Your task to perform on an android device: Go to notification settings Image 0: 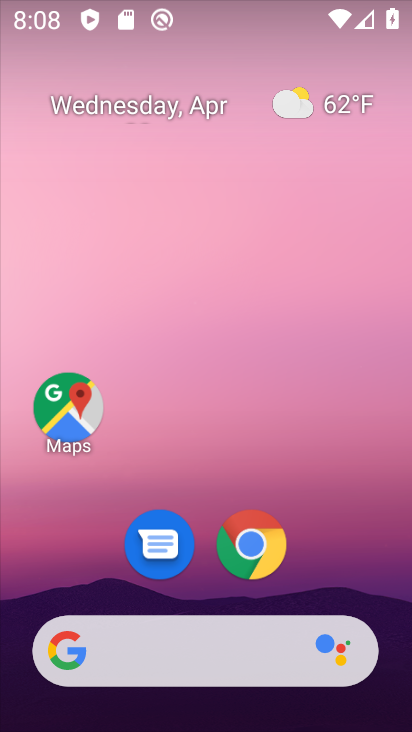
Step 0: drag from (343, 583) to (281, 139)
Your task to perform on an android device: Go to notification settings Image 1: 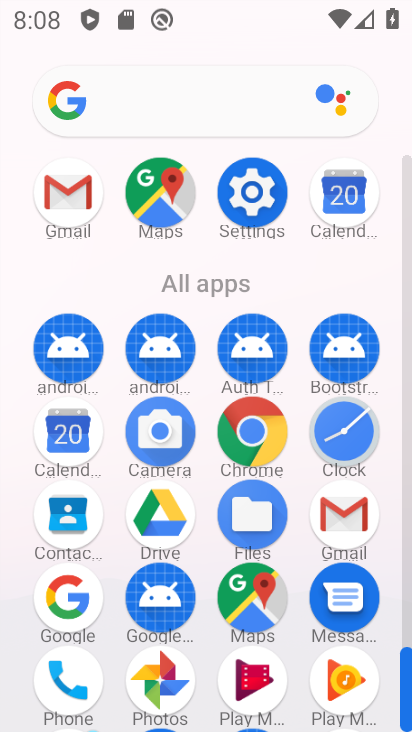
Step 1: click (262, 193)
Your task to perform on an android device: Go to notification settings Image 2: 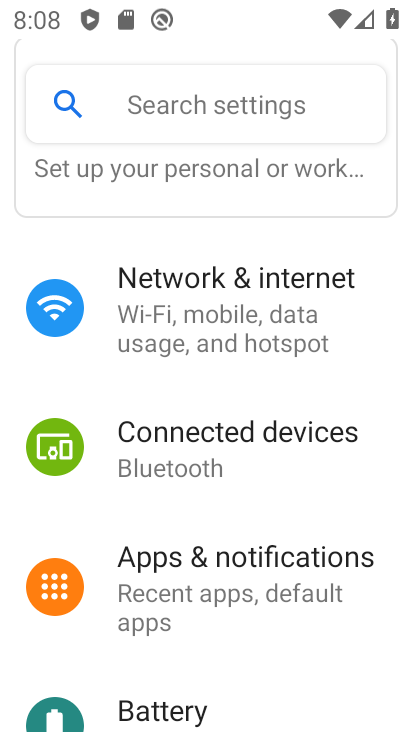
Step 2: click (178, 583)
Your task to perform on an android device: Go to notification settings Image 3: 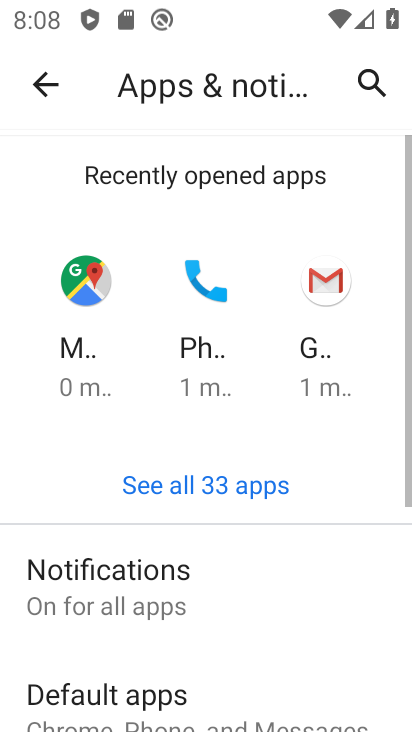
Step 3: click (150, 601)
Your task to perform on an android device: Go to notification settings Image 4: 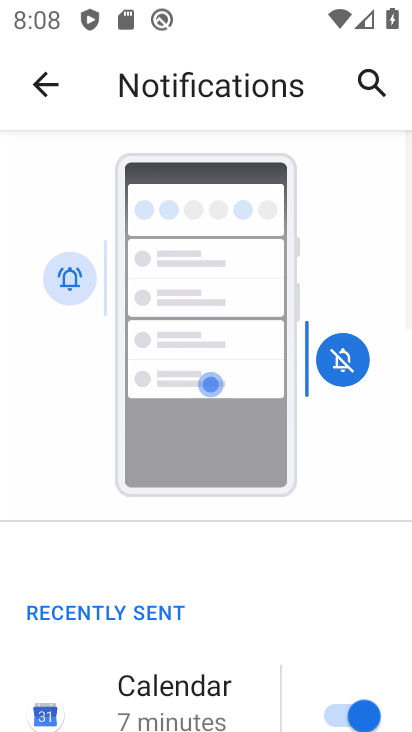
Step 4: drag from (201, 657) to (212, 140)
Your task to perform on an android device: Go to notification settings Image 5: 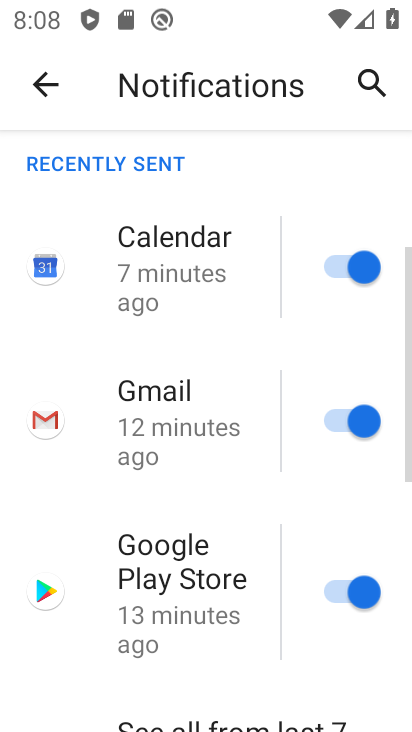
Step 5: drag from (154, 676) to (142, 199)
Your task to perform on an android device: Go to notification settings Image 6: 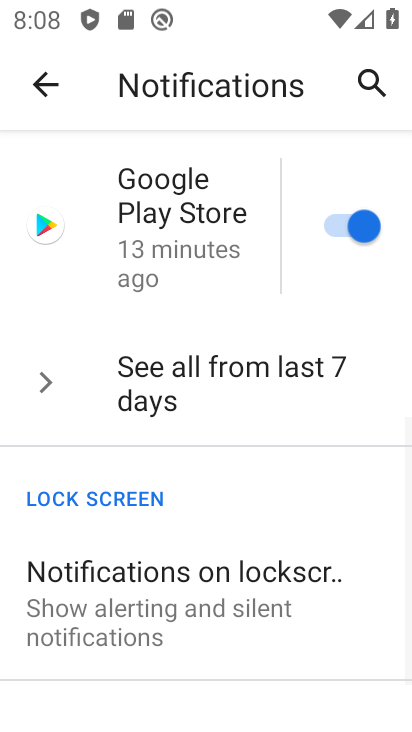
Step 6: drag from (140, 600) to (160, 181)
Your task to perform on an android device: Go to notification settings Image 7: 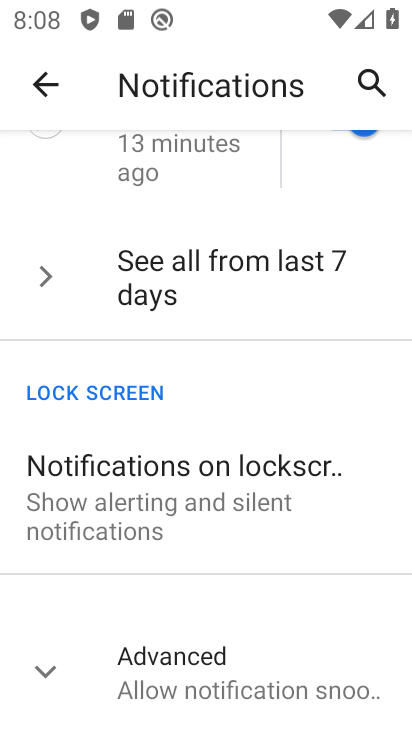
Step 7: click (155, 688)
Your task to perform on an android device: Go to notification settings Image 8: 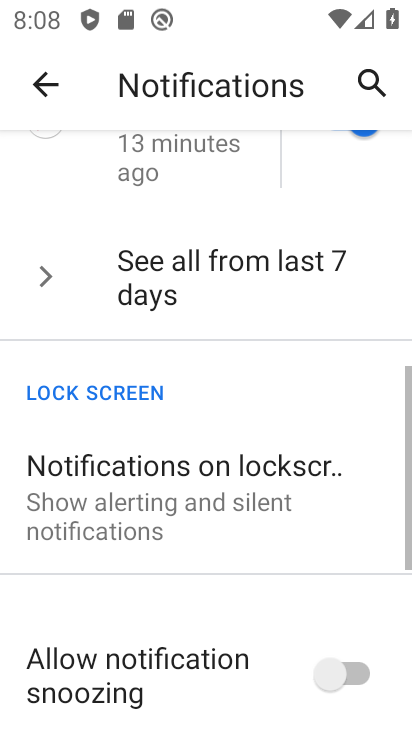
Step 8: task complete